Your task to perform on an android device: Go to eBay Image 0: 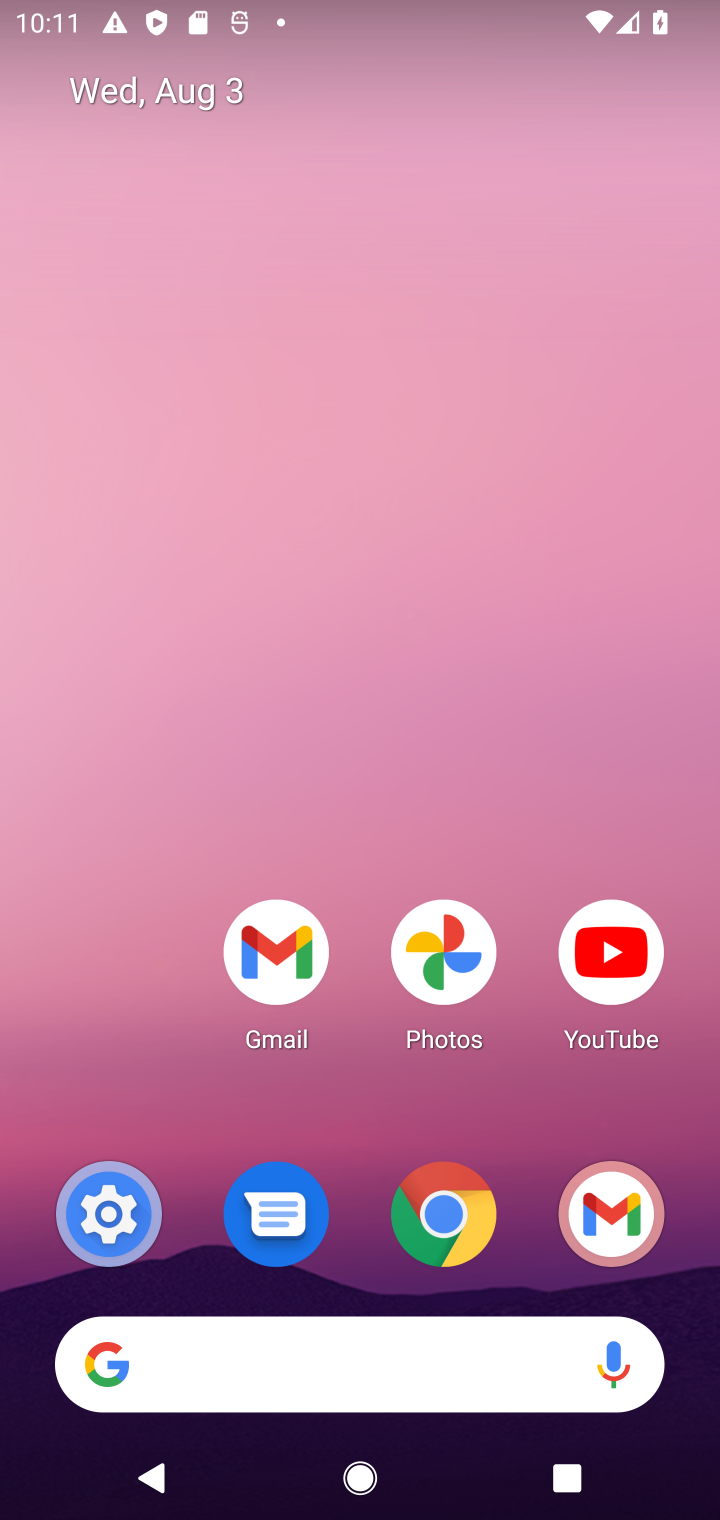
Step 0: press home button
Your task to perform on an android device: Go to eBay Image 1: 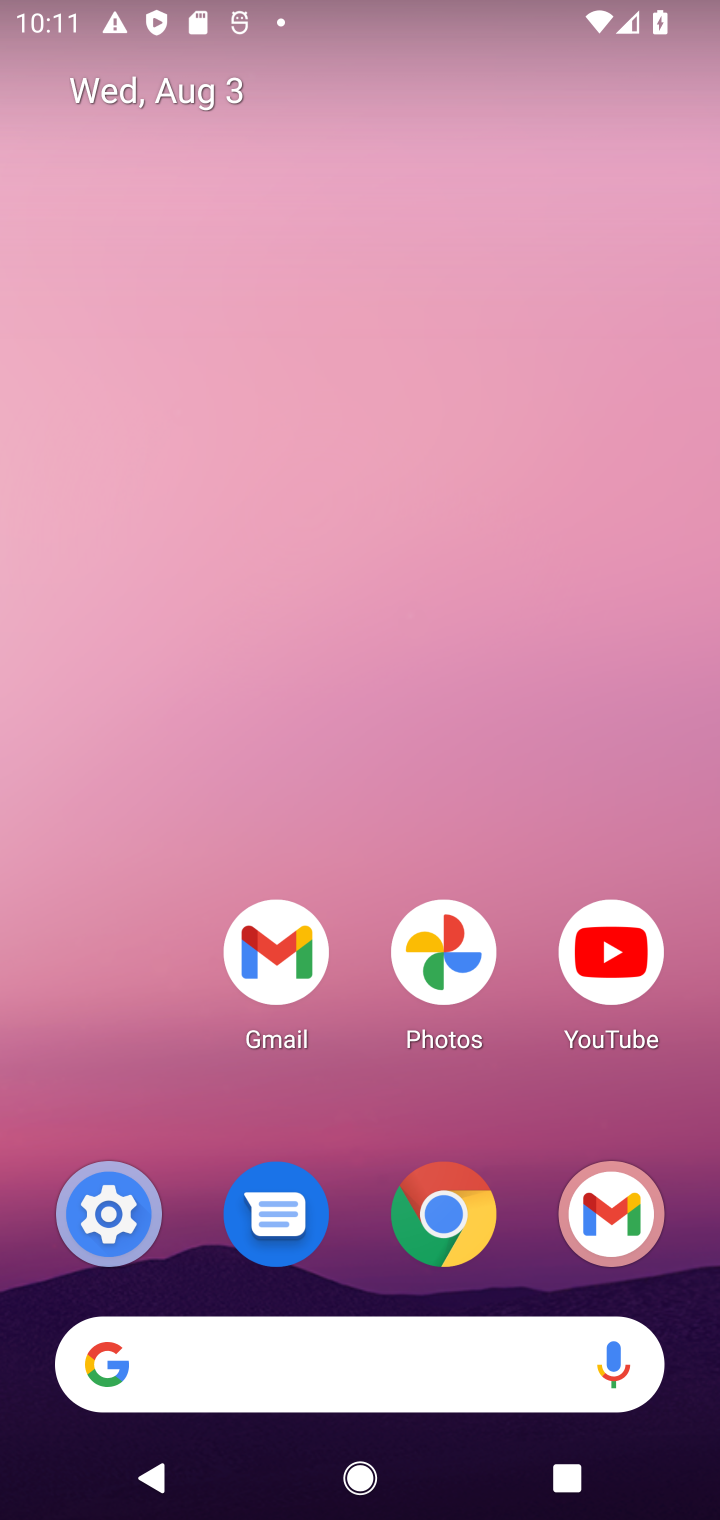
Step 1: click (458, 1228)
Your task to perform on an android device: Go to eBay Image 2: 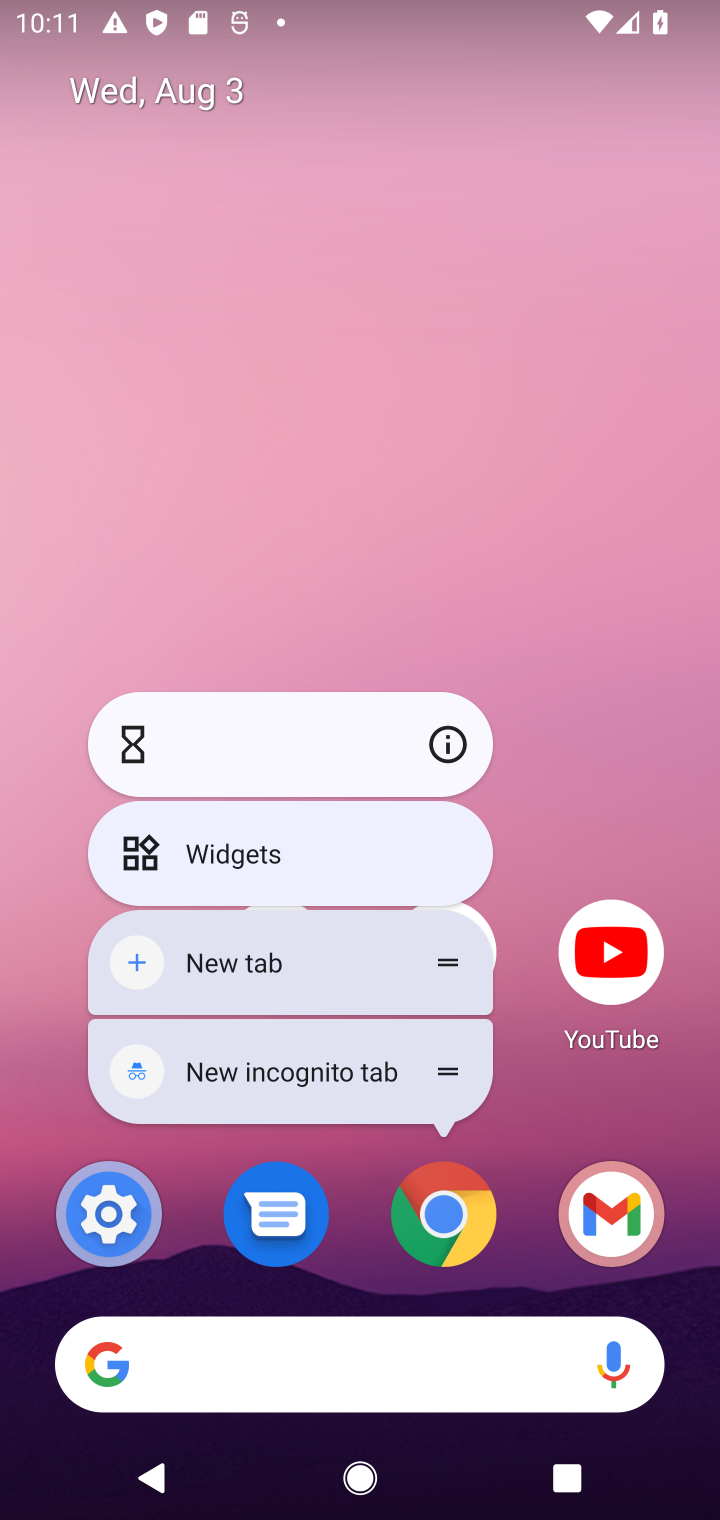
Step 2: click (619, 1206)
Your task to perform on an android device: Go to eBay Image 3: 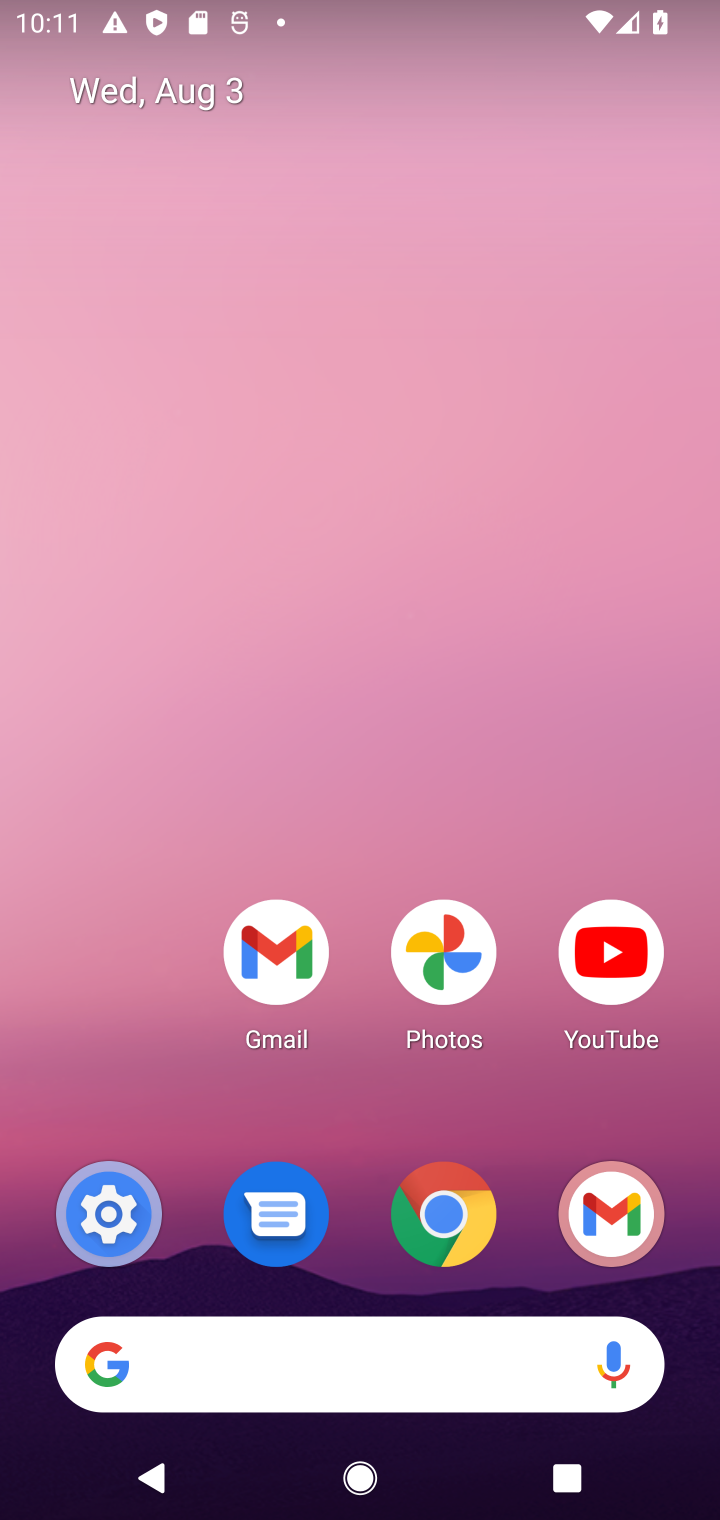
Step 3: press back button
Your task to perform on an android device: Go to eBay Image 4: 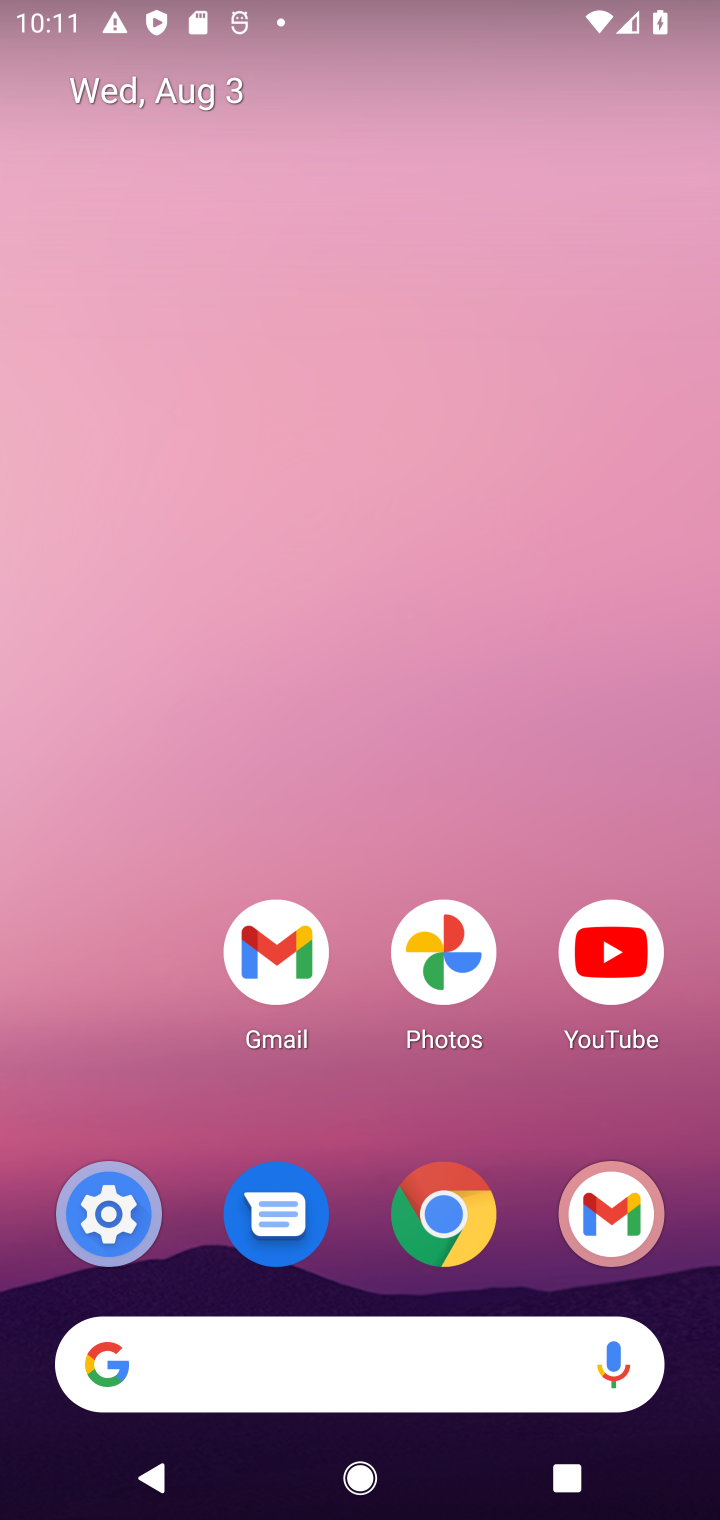
Step 4: press home button
Your task to perform on an android device: Go to eBay Image 5: 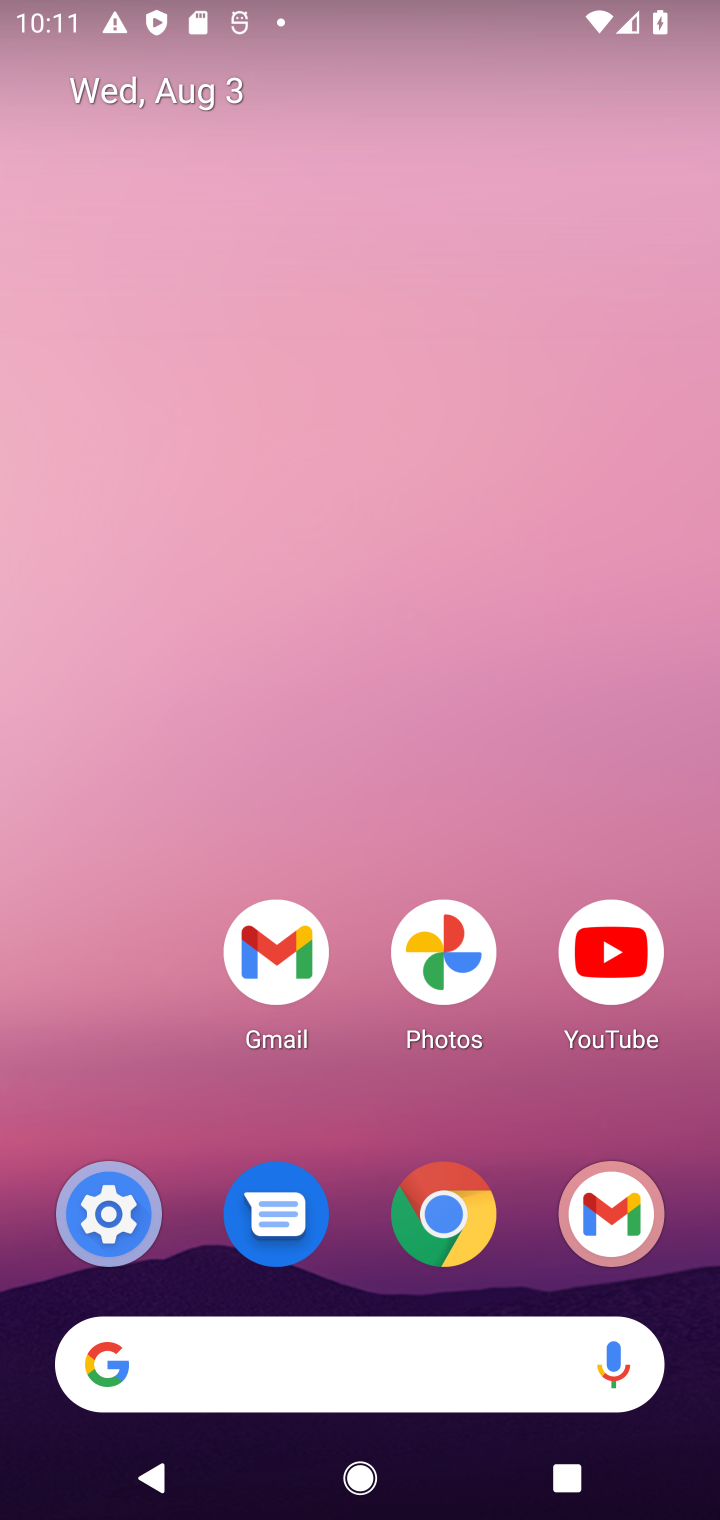
Step 5: press home button
Your task to perform on an android device: Go to eBay Image 6: 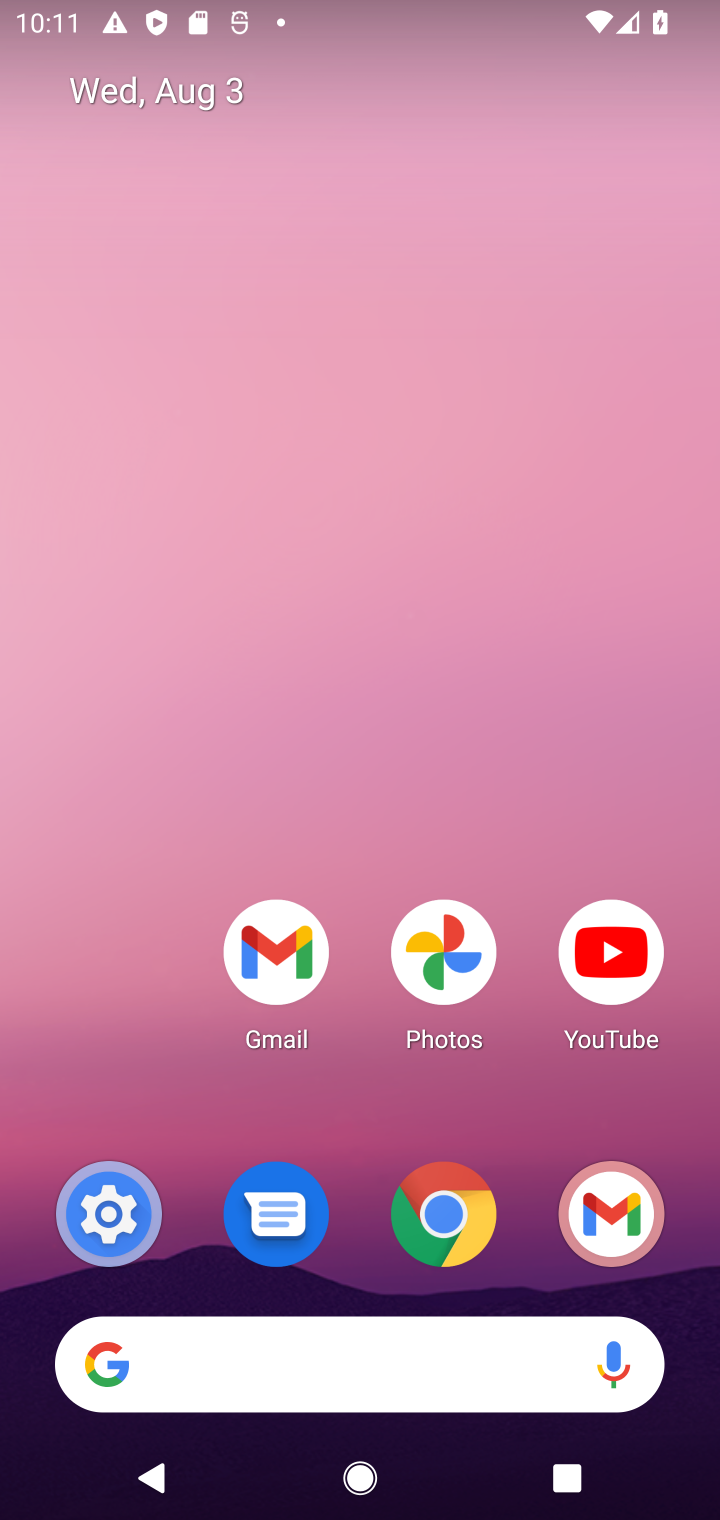
Step 6: click (475, 1201)
Your task to perform on an android device: Go to eBay Image 7: 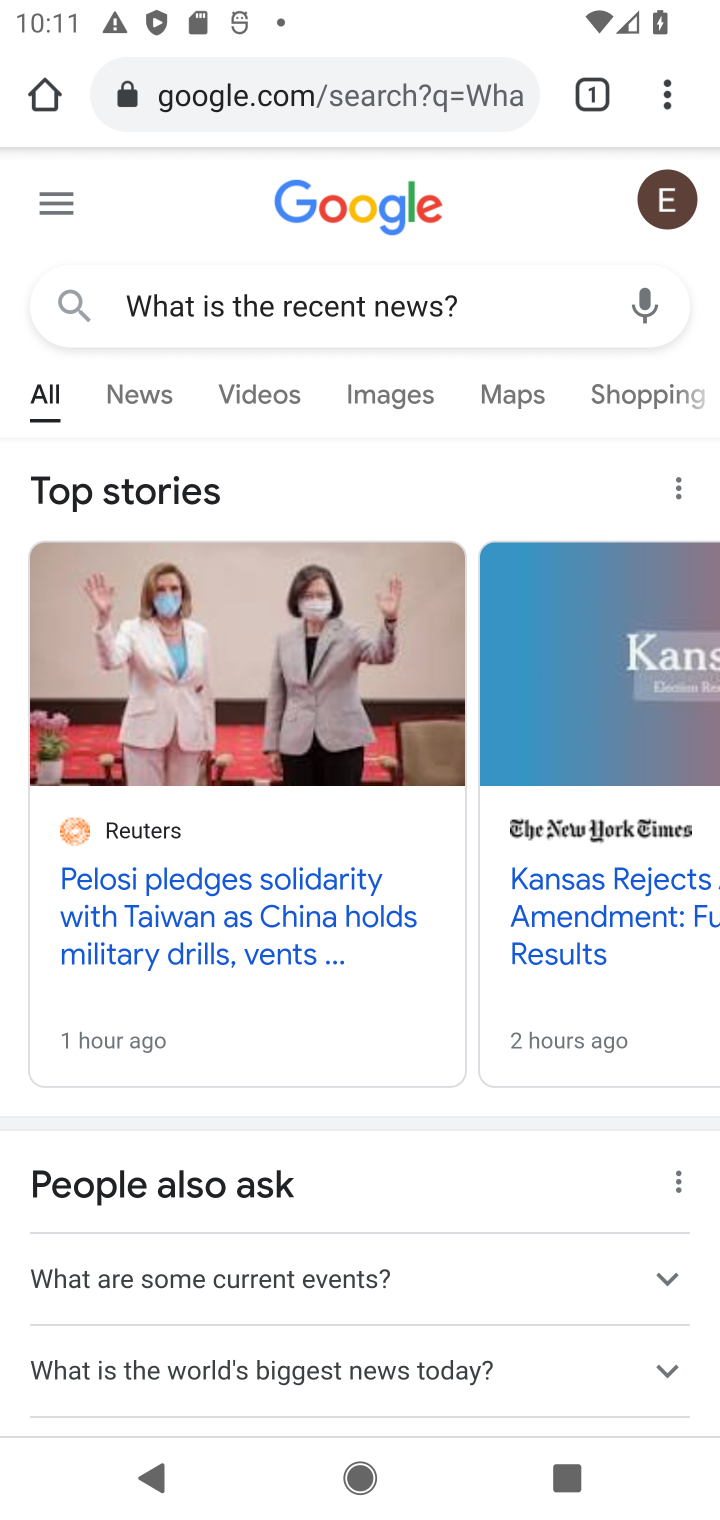
Step 7: click (393, 91)
Your task to perform on an android device: Go to eBay Image 8: 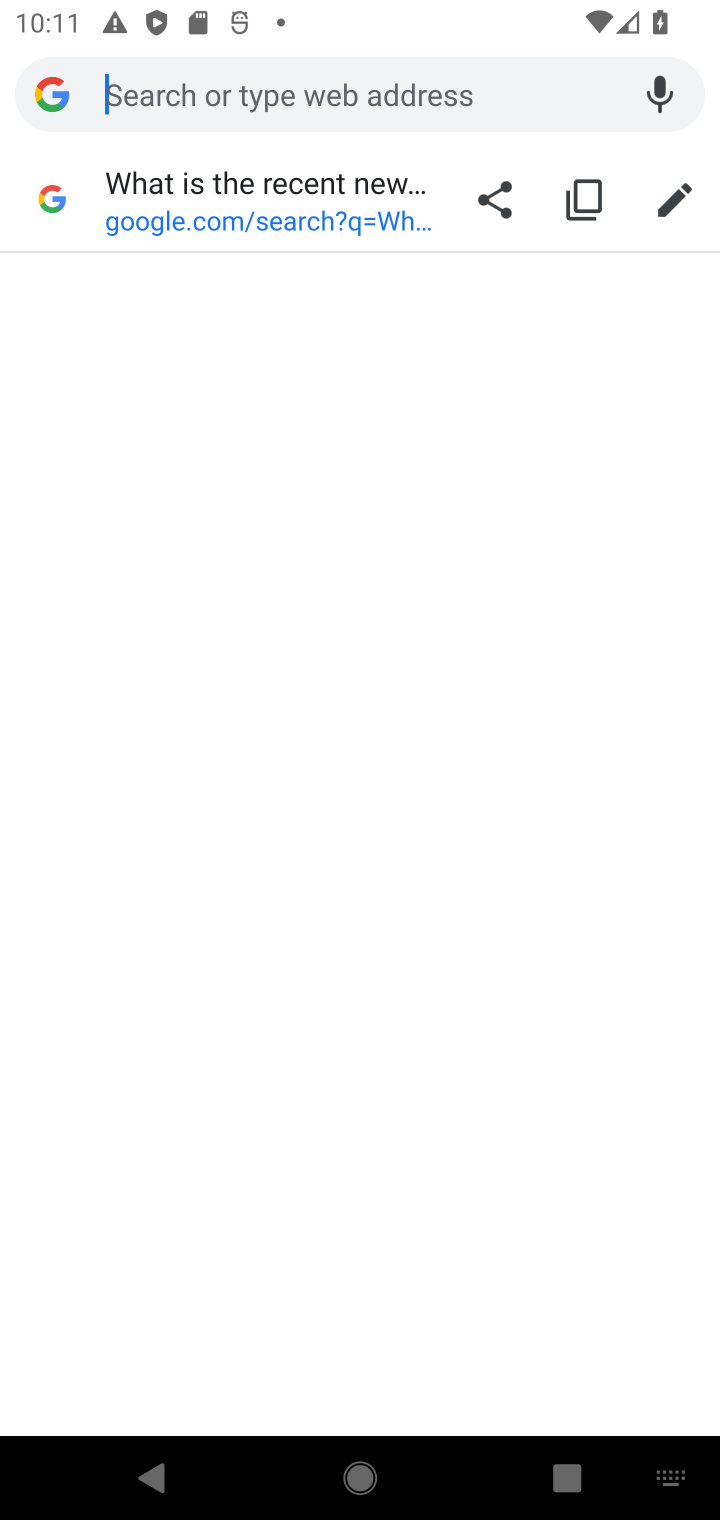
Step 8: type "eBay"
Your task to perform on an android device: Go to eBay Image 9: 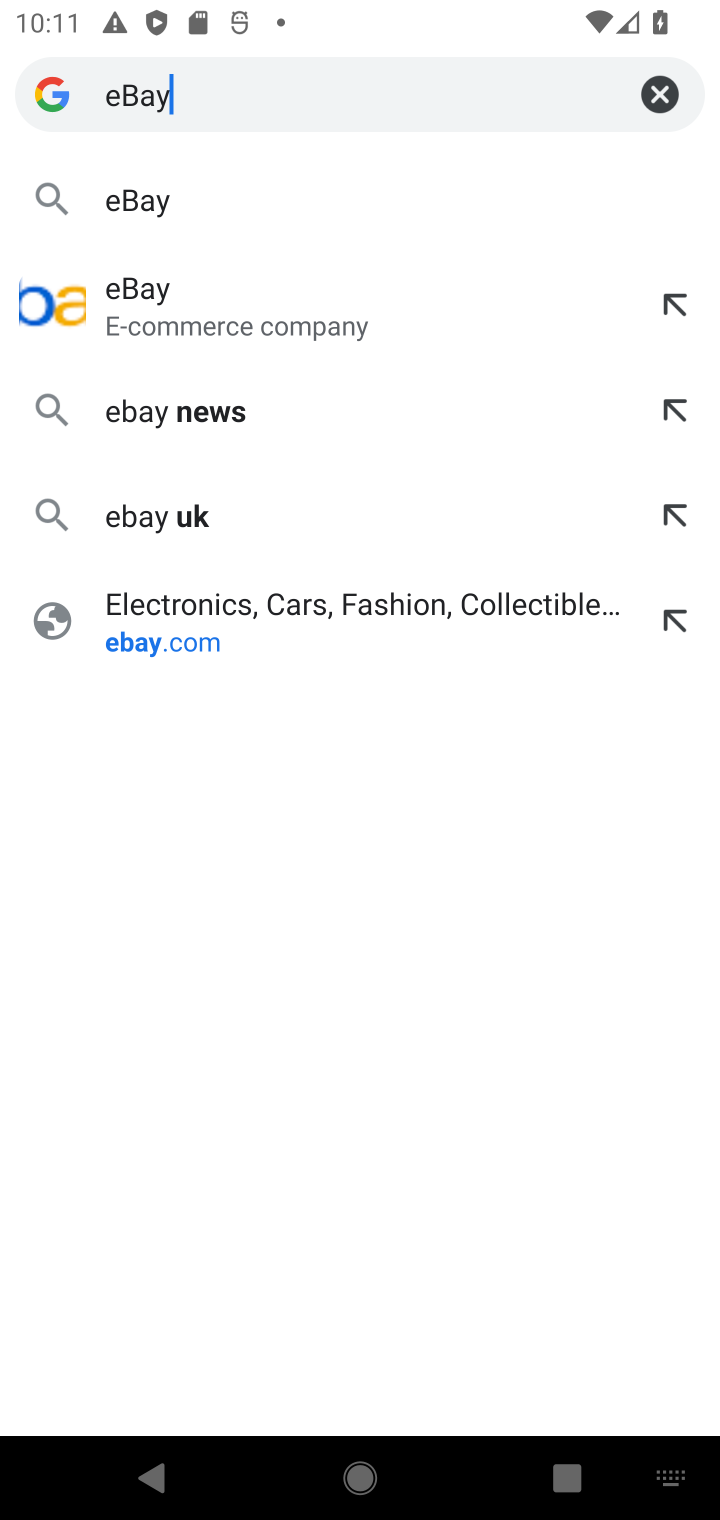
Step 9: click (221, 301)
Your task to perform on an android device: Go to eBay Image 10: 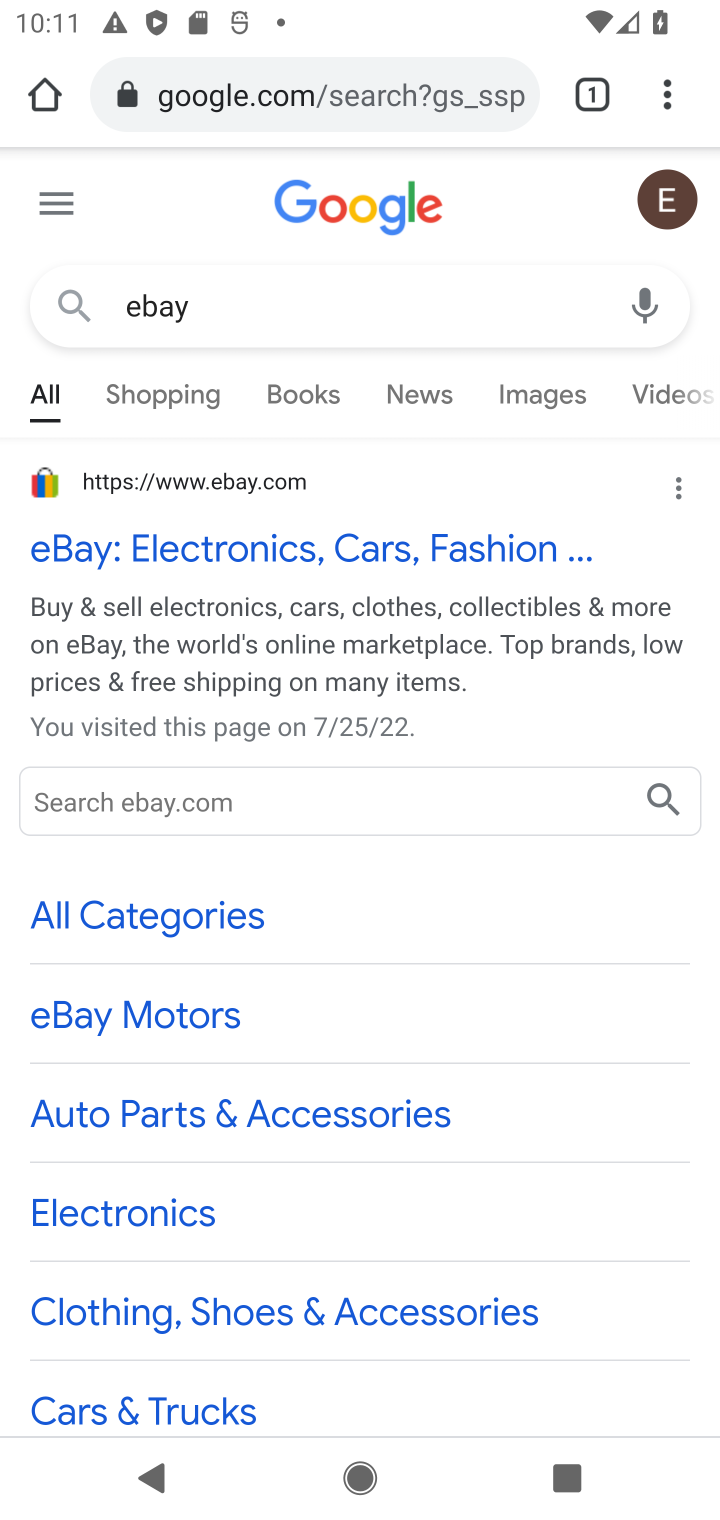
Step 10: click (535, 536)
Your task to perform on an android device: Go to eBay Image 11: 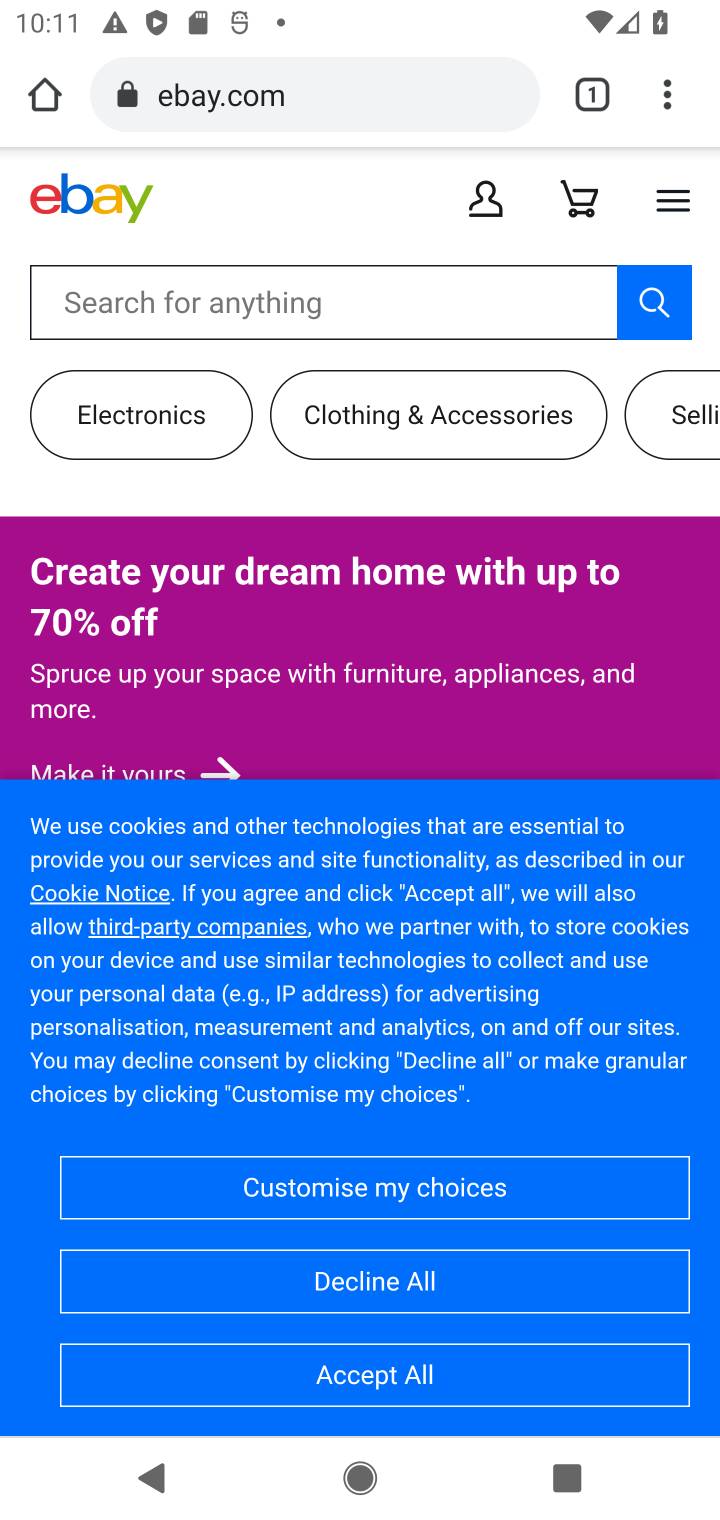
Step 11: task complete